Your task to perform on an android device: uninstall "VLC for Android" Image 0: 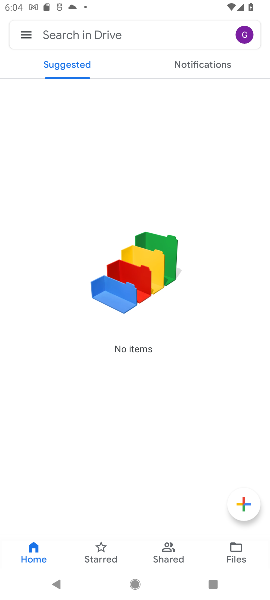
Step 0: press home button
Your task to perform on an android device: uninstall "VLC for Android" Image 1: 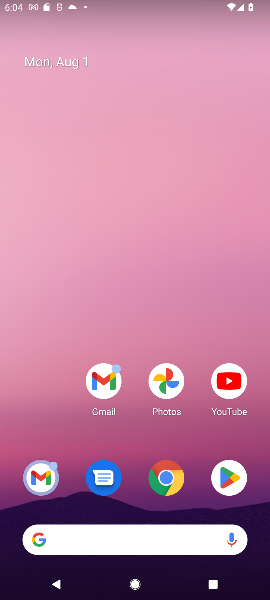
Step 1: click (223, 480)
Your task to perform on an android device: uninstall "VLC for Android" Image 2: 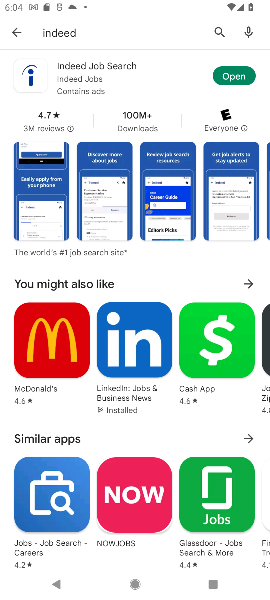
Step 2: click (219, 32)
Your task to perform on an android device: uninstall "VLC for Android" Image 3: 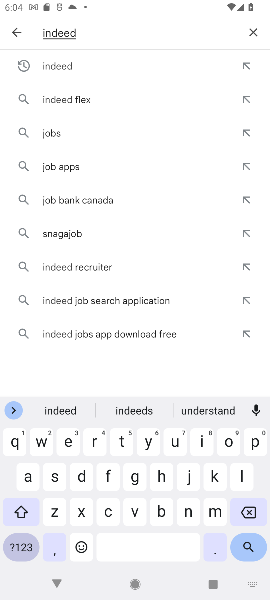
Step 3: click (250, 33)
Your task to perform on an android device: uninstall "VLC for Android" Image 4: 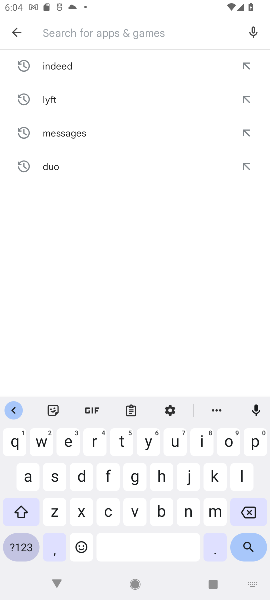
Step 4: click (138, 515)
Your task to perform on an android device: uninstall "VLC for Android" Image 5: 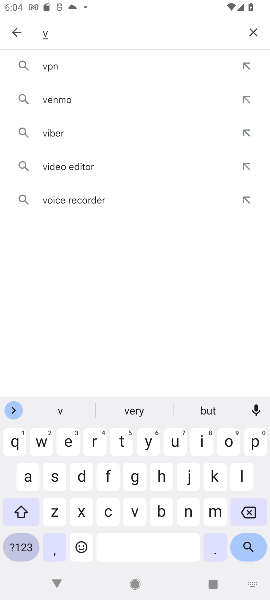
Step 5: click (249, 474)
Your task to perform on an android device: uninstall "VLC for Android" Image 6: 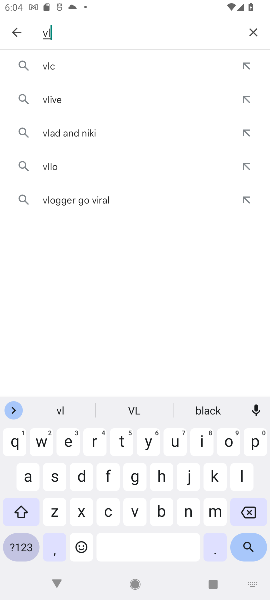
Step 6: click (103, 510)
Your task to perform on an android device: uninstall "VLC for Android" Image 7: 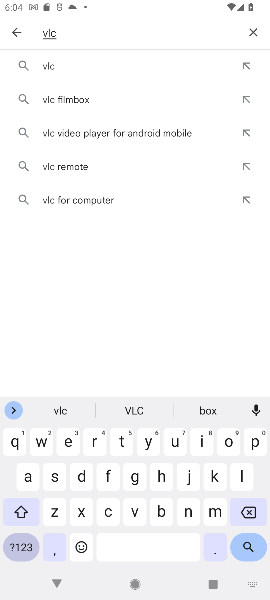
Step 7: click (68, 71)
Your task to perform on an android device: uninstall "VLC for Android" Image 8: 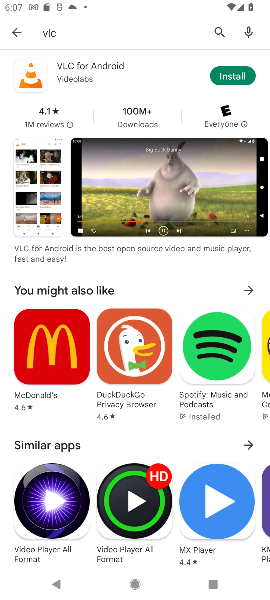
Step 8: task complete